Your task to perform on an android device: read, delete, or share a saved page in the chrome app Image 0: 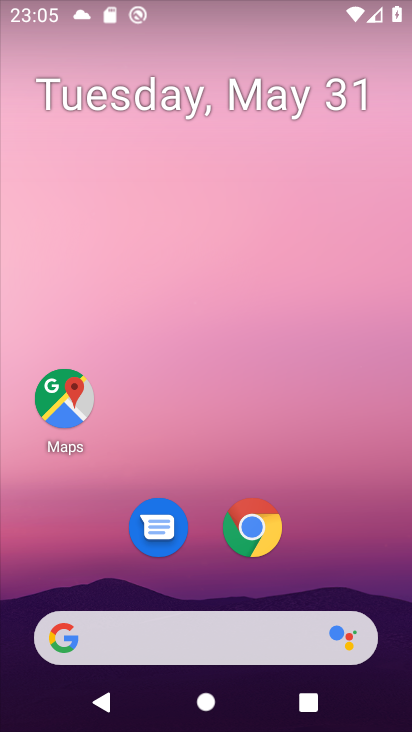
Step 0: click (265, 530)
Your task to perform on an android device: read, delete, or share a saved page in the chrome app Image 1: 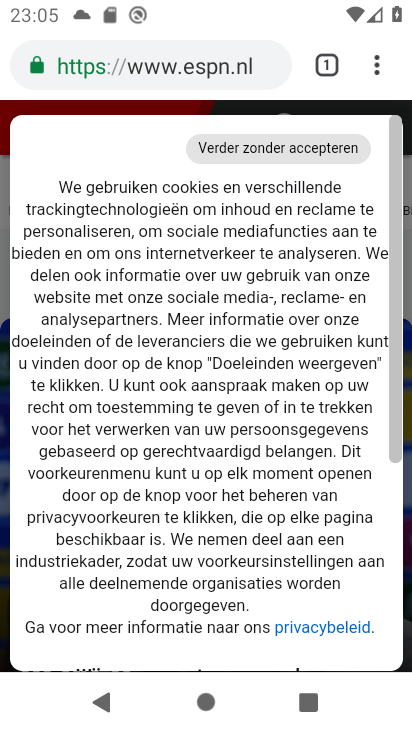
Step 1: click (381, 67)
Your task to perform on an android device: read, delete, or share a saved page in the chrome app Image 2: 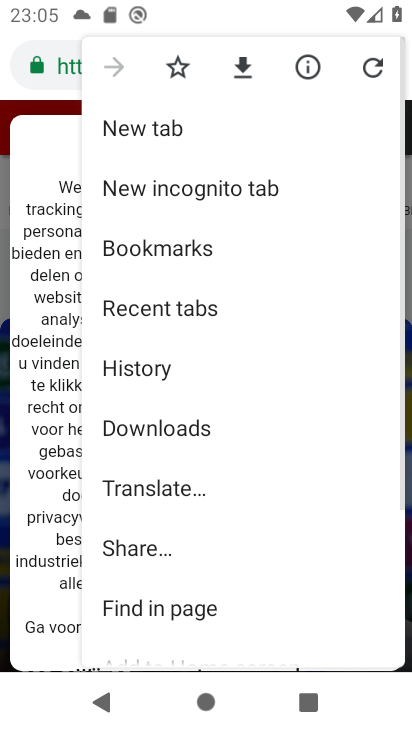
Step 2: click (173, 419)
Your task to perform on an android device: read, delete, or share a saved page in the chrome app Image 3: 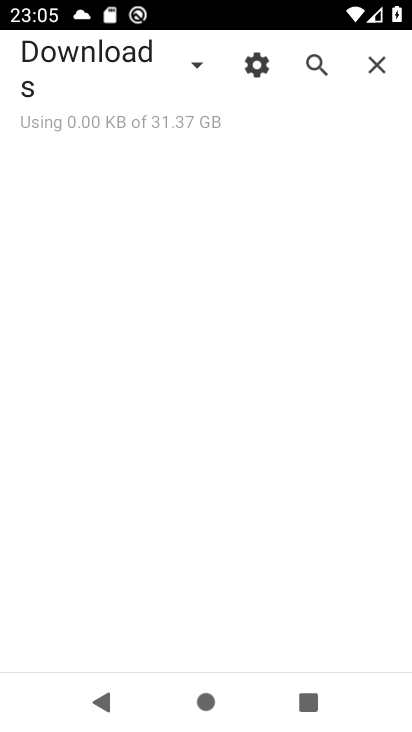
Step 3: click (173, 62)
Your task to perform on an android device: read, delete, or share a saved page in the chrome app Image 4: 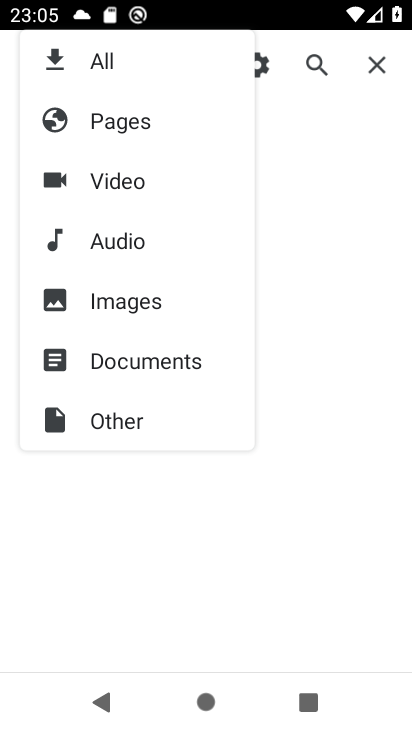
Step 4: click (146, 122)
Your task to perform on an android device: read, delete, or share a saved page in the chrome app Image 5: 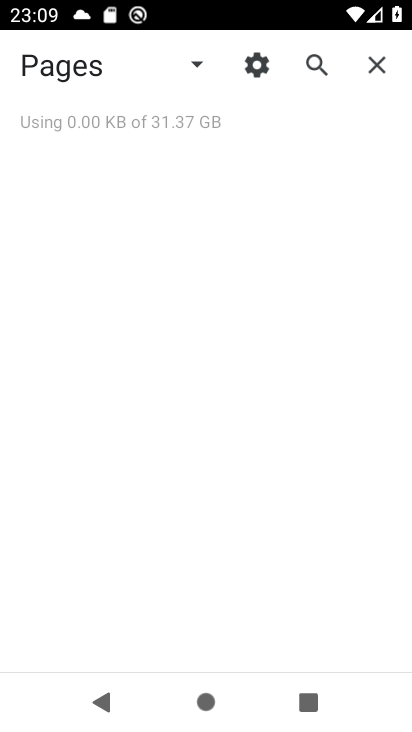
Step 5: task complete